Your task to perform on an android device: turn on sleep mode Image 0: 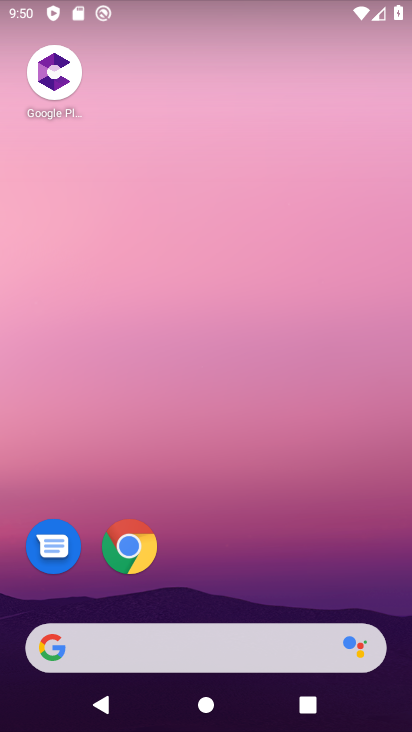
Step 0: drag from (202, 622) to (196, 55)
Your task to perform on an android device: turn on sleep mode Image 1: 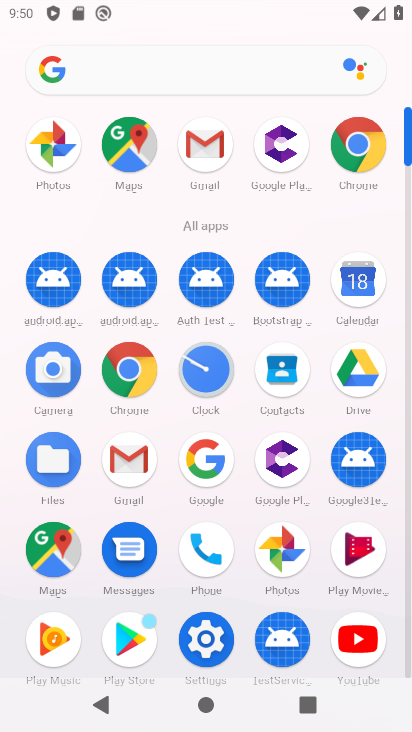
Step 1: click (206, 642)
Your task to perform on an android device: turn on sleep mode Image 2: 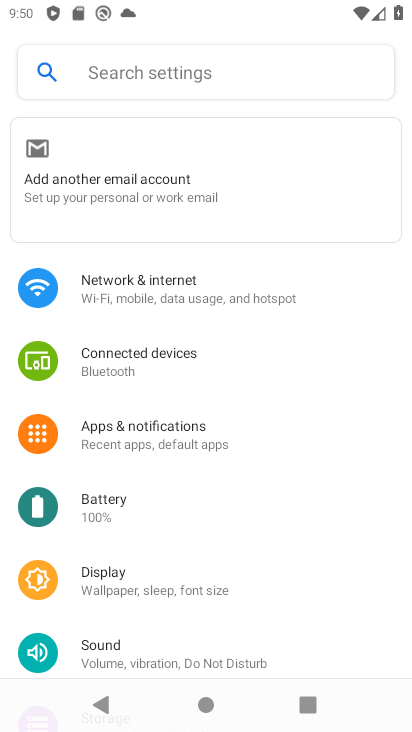
Step 2: drag from (195, 640) to (202, 272)
Your task to perform on an android device: turn on sleep mode Image 3: 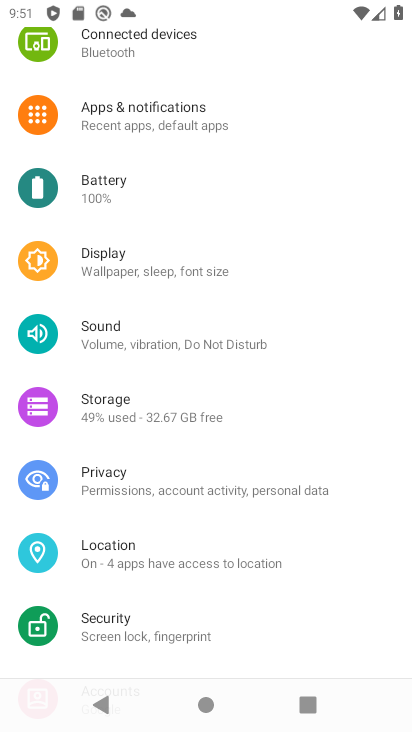
Step 3: click (117, 261)
Your task to perform on an android device: turn on sleep mode Image 4: 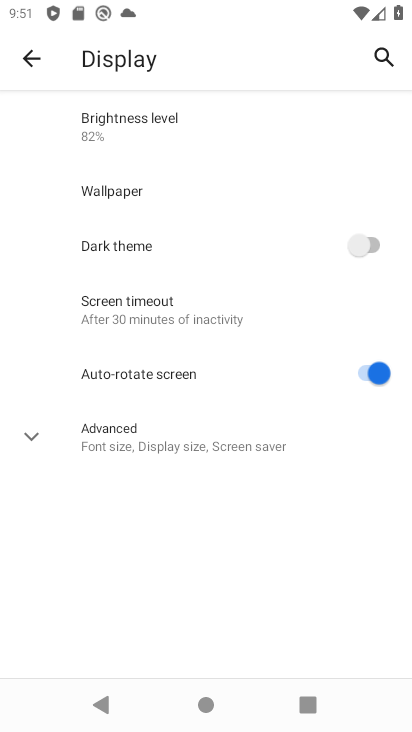
Step 4: click (31, 55)
Your task to perform on an android device: turn on sleep mode Image 5: 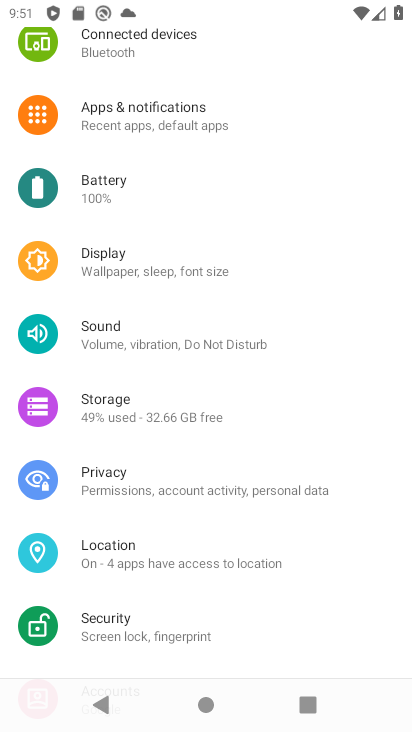
Step 5: task complete